Your task to perform on an android device: move an email to a new category in the gmail app Image 0: 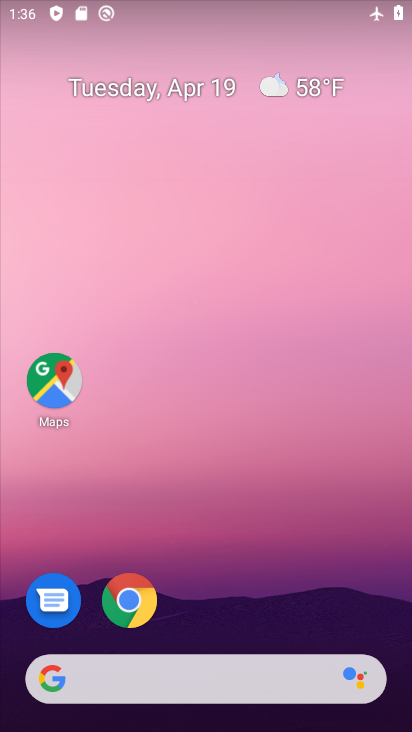
Step 0: drag from (246, 670) to (268, 222)
Your task to perform on an android device: move an email to a new category in the gmail app Image 1: 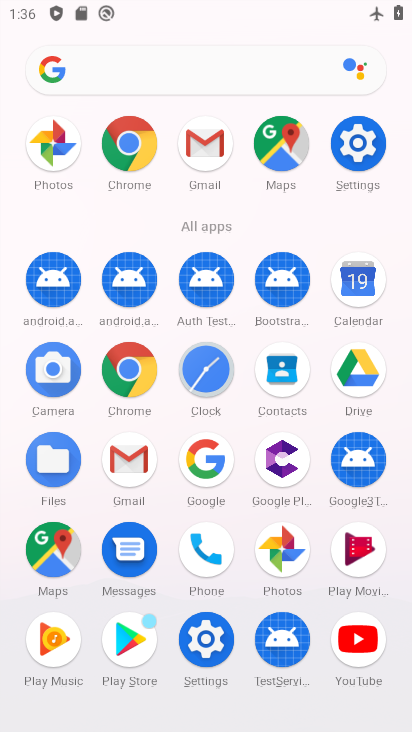
Step 1: click (137, 457)
Your task to perform on an android device: move an email to a new category in the gmail app Image 2: 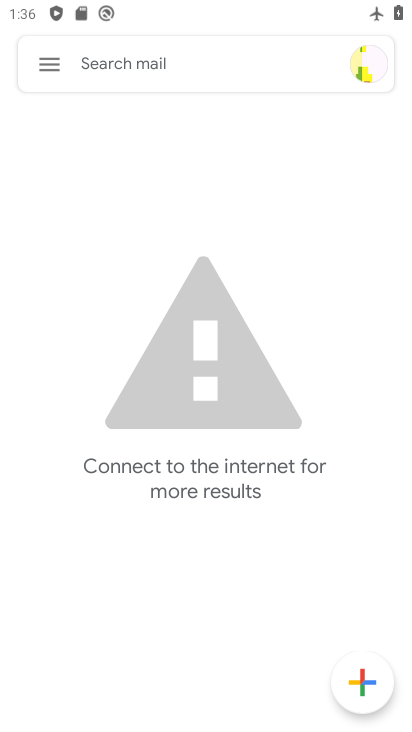
Step 2: click (49, 61)
Your task to perform on an android device: move an email to a new category in the gmail app Image 3: 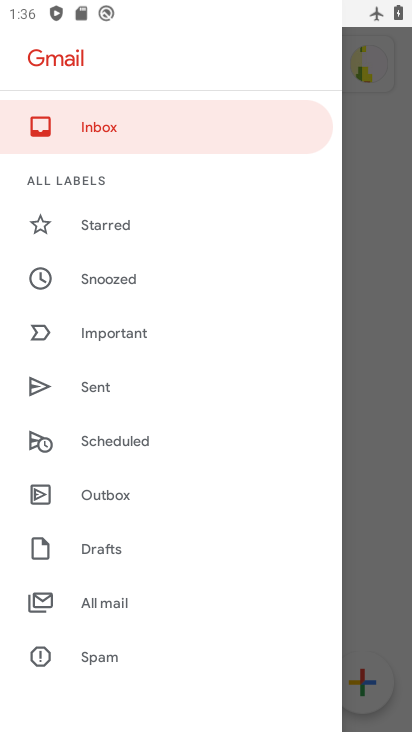
Step 3: click (118, 608)
Your task to perform on an android device: move an email to a new category in the gmail app Image 4: 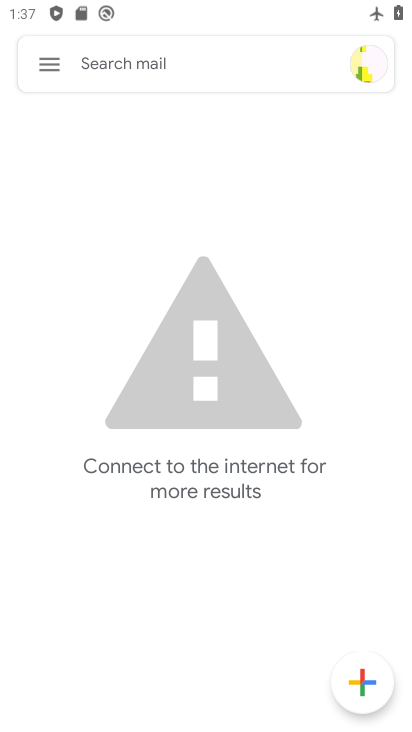
Step 4: task complete